Your task to perform on an android device: read, delete, or share a saved page in the chrome app Image 0: 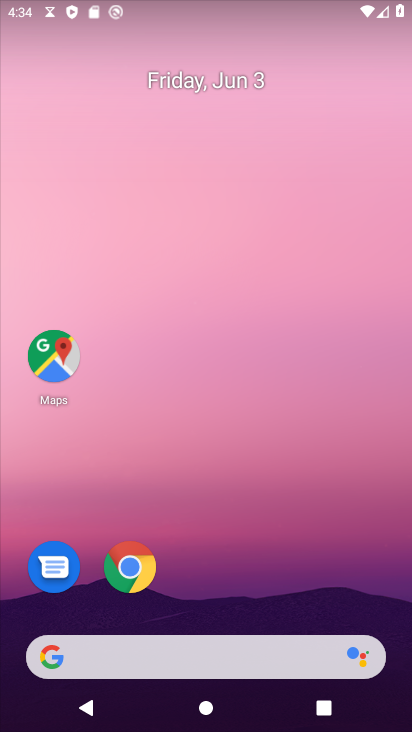
Step 0: click (128, 567)
Your task to perform on an android device: read, delete, or share a saved page in the chrome app Image 1: 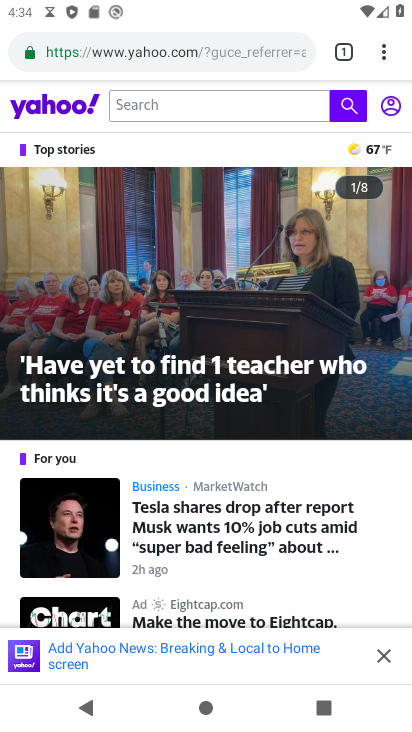
Step 1: click (384, 51)
Your task to perform on an android device: read, delete, or share a saved page in the chrome app Image 2: 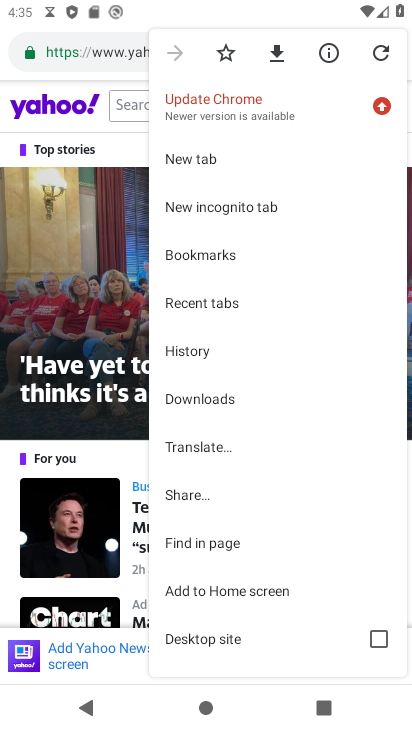
Step 2: click (194, 386)
Your task to perform on an android device: read, delete, or share a saved page in the chrome app Image 3: 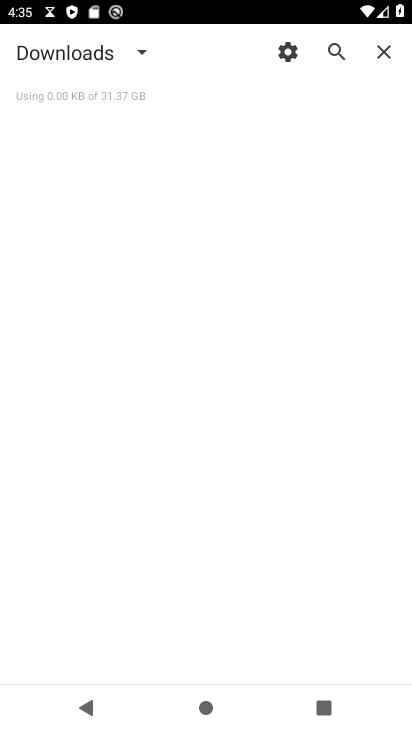
Step 3: task complete